Your task to perform on an android device: turn off location history Image 0: 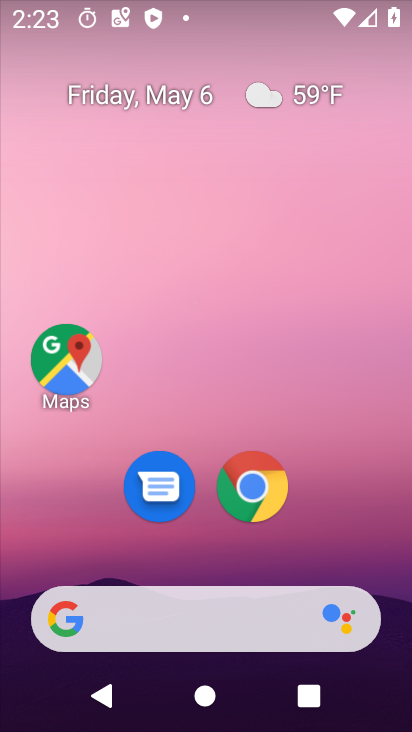
Step 0: click (63, 375)
Your task to perform on an android device: turn off location history Image 1: 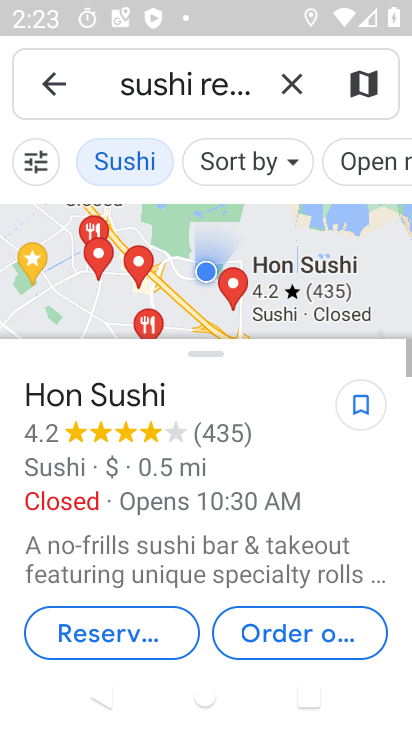
Step 1: click (287, 80)
Your task to perform on an android device: turn off location history Image 2: 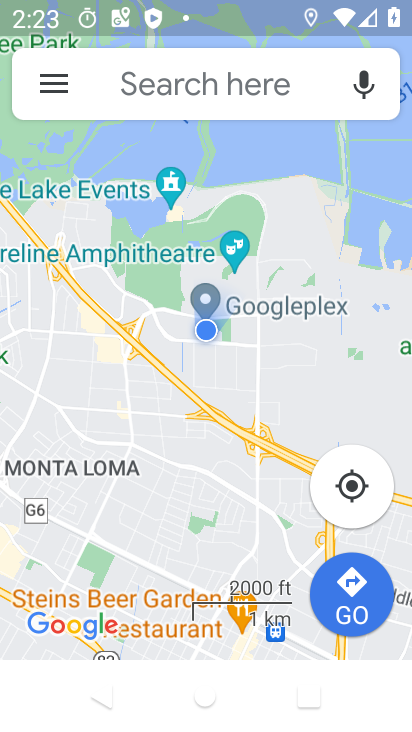
Step 2: click (43, 81)
Your task to perform on an android device: turn off location history Image 3: 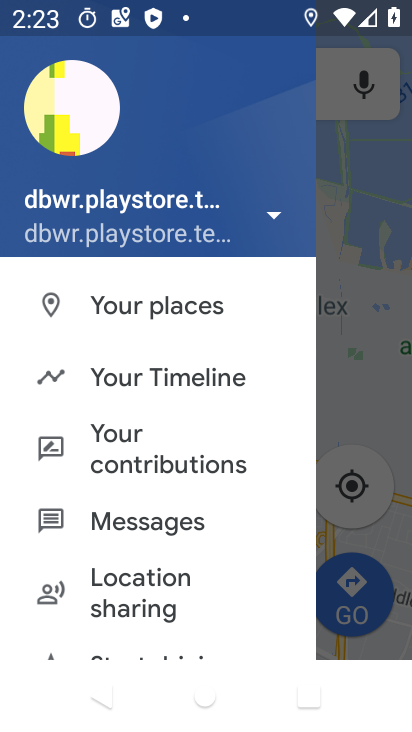
Step 3: click (155, 371)
Your task to perform on an android device: turn off location history Image 4: 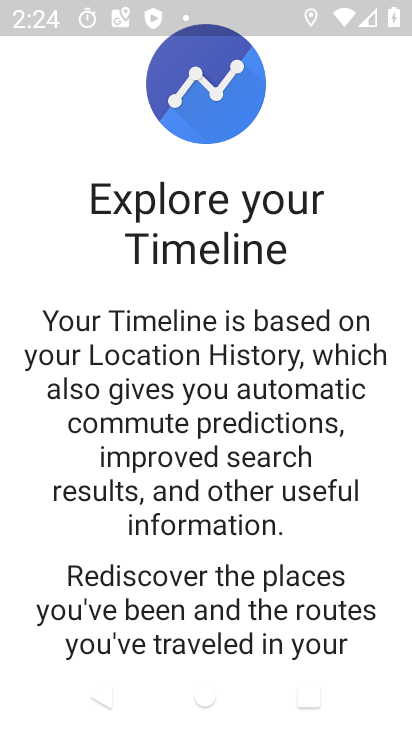
Step 4: drag from (299, 571) to (318, 123)
Your task to perform on an android device: turn off location history Image 5: 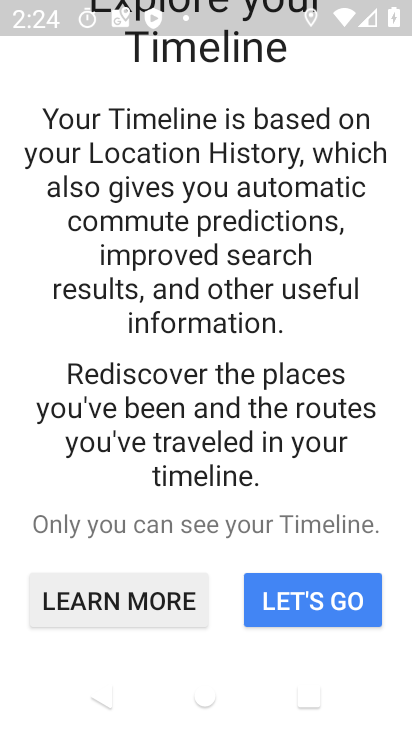
Step 5: click (281, 600)
Your task to perform on an android device: turn off location history Image 6: 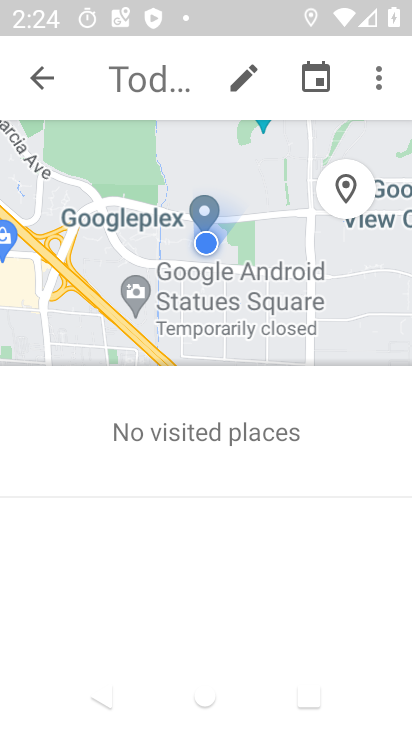
Step 6: click (379, 76)
Your task to perform on an android device: turn off location history Image 7: 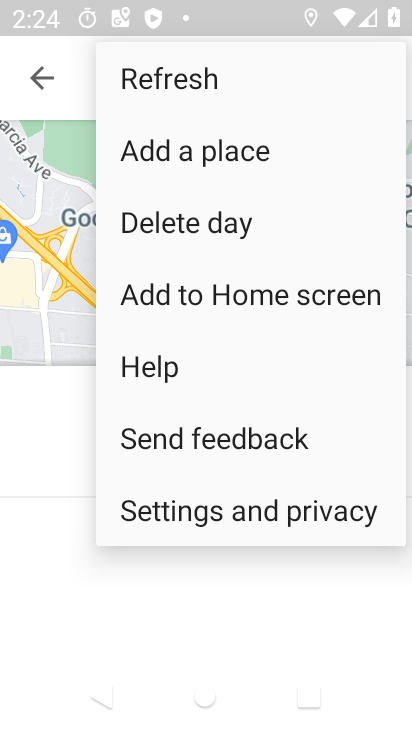
Step 7: click (257, 507)
Your task to perform on an android device: turn off location history Image 8: 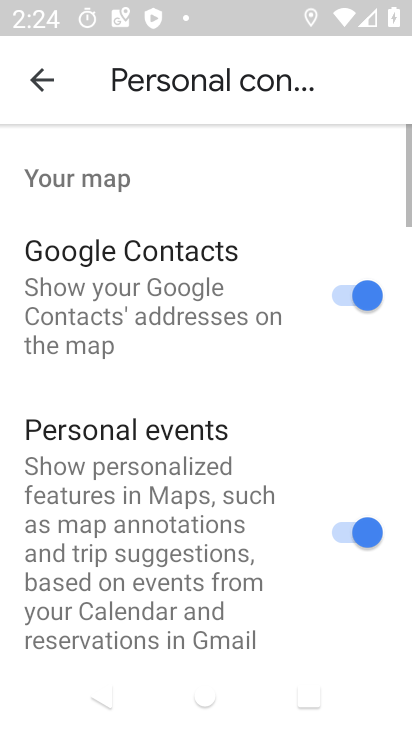
Step 8: drag from (221, 462) to (214, 108)
Your task to perform on an android device: turn off location history Image 9: 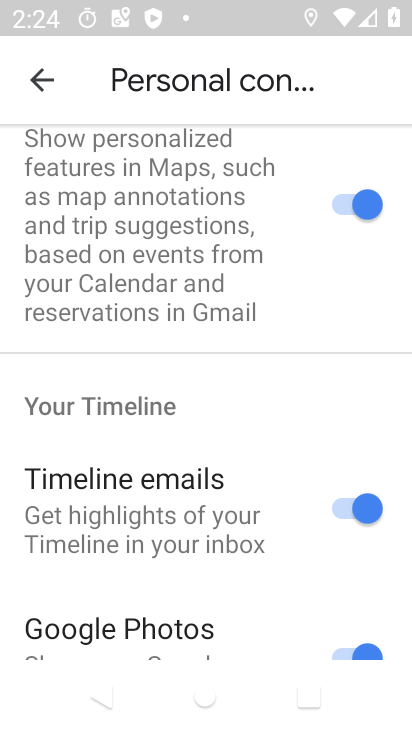
Step 9: drag from (283, 577) to (300, 34)
Your task to perform on an android device: turn off location history Image 10: 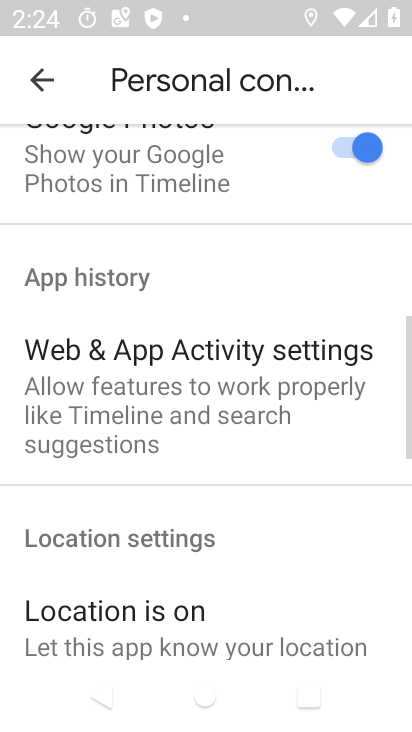
Step 10: drag from (270, 492) to (262, 139)
Your task to perform on an android device: turn off location history Image 11: 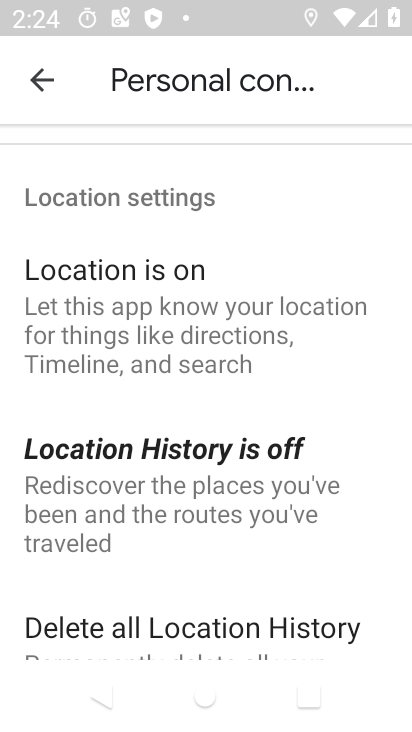
Step 11: click (203, 442)
Your task to perform on an android device: turn off location history Image 12: 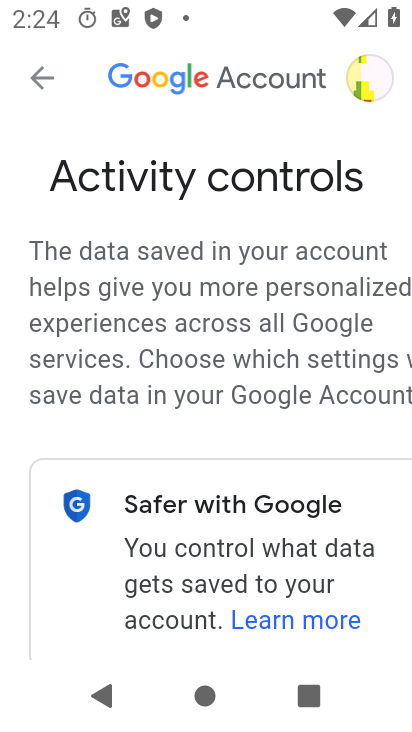
Step 12: task complete